Your task to perform on an android device: Clear all items from cart on ebay. Image 0: 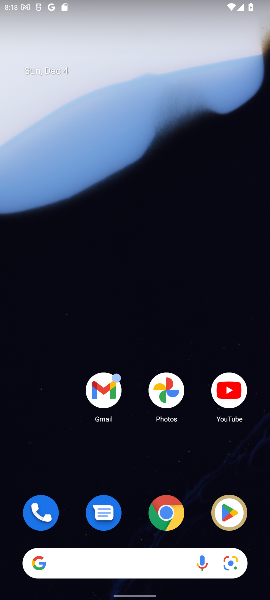
Step 0: click (167, 508)
Your task to perform on an android device: Clear all items from cart on ebay. Image 1: 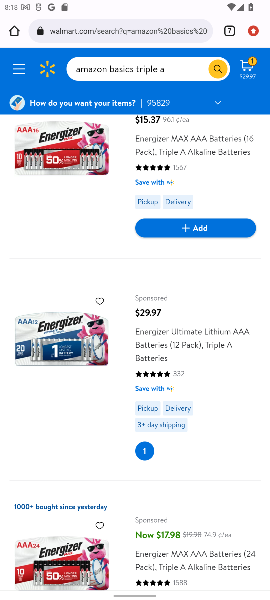
Step 1: click (228, 32)
Your task to perform on an android device: Clear all items from cart on ebay. Image 2: 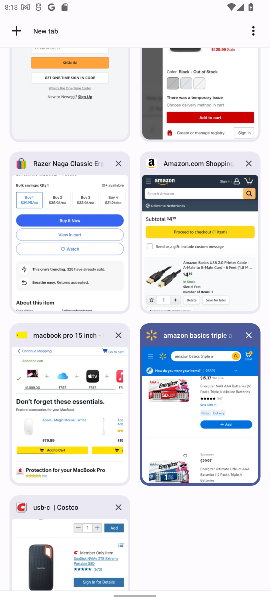
Step 2: click (78, 208)
Your task to perform on an android device: Clear all items from cart on ebay. Image 3: 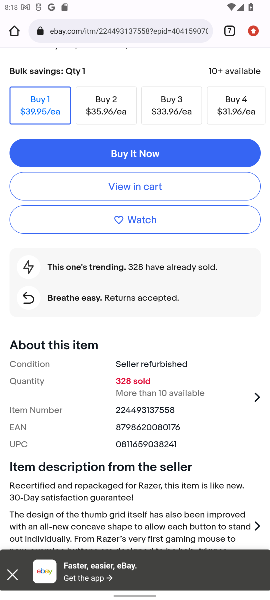
Step 3: drag from (184, 71) to (115, 462)
Your task to perform on an android device: Clear all items from cart on ebay. Image 4: 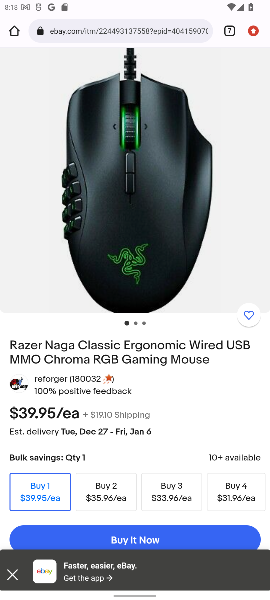
Step 4: drag from (226, 82) to (155, 503)
Your task to perform on an android device: Clear all items from cart on ebay. Image 5: 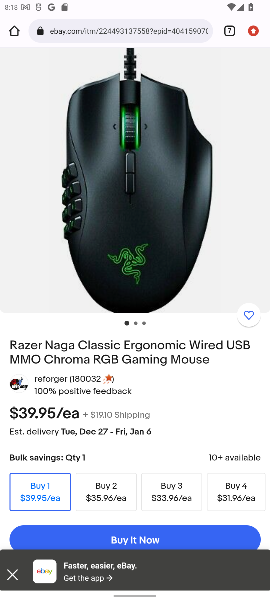
Step 5: drag from (233, 62) to (213, 373)
Your task to perform on an android device: Clear all items from cart on ebay. Image 6: 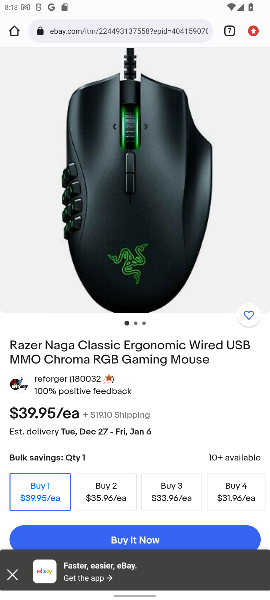
Step 6: drag from (176, 215) to (126, 568)
Your task to perform on an android device: Clear all items from cart on ebay. Image 7: 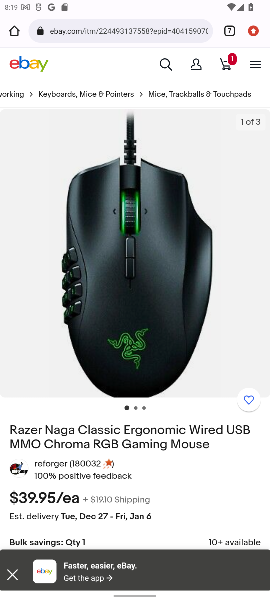
Step 7: click (226, 63)
Your task to perform on an android device: Clear all items from cart on ebay. Image 8: 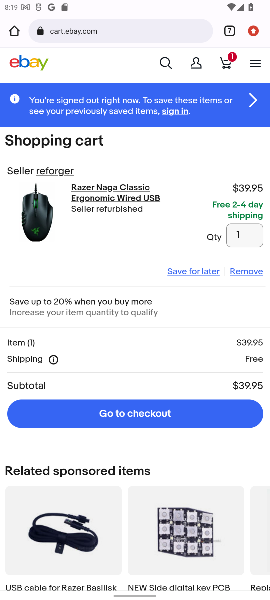
Step 8: click (238, 271)
Your task to perform on an android device: Clear all items from cart on ebay. Image 9: 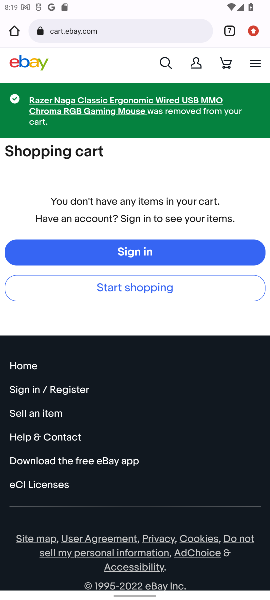
Step 9: task complete